Your task to perform on an android device: choose inbox layout in the gmail app Image 0: 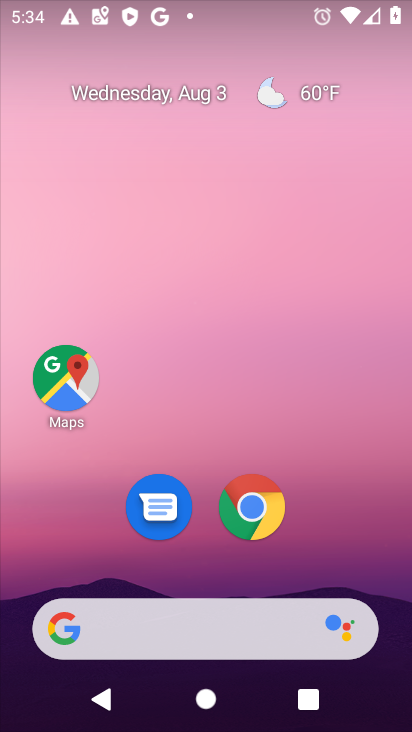
Step 0: drag from (337, 552) to (261, 55)
Your task to perform on an android device: choose inbox layout in the gmail app Image 1: 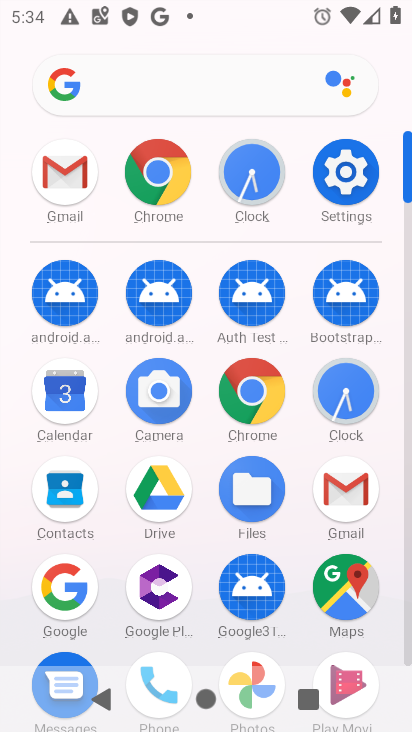
Step 1: click (330, 496)
Your task to perform on an android device: choose inbox layout in the gmail app Image 2: 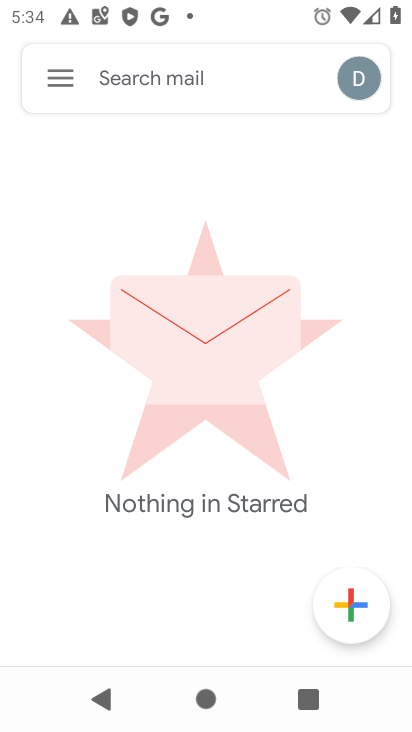
Step 2: click (61, 76)
Your task to perform on an android device: choose inbox layout in the gmail app Image 3: 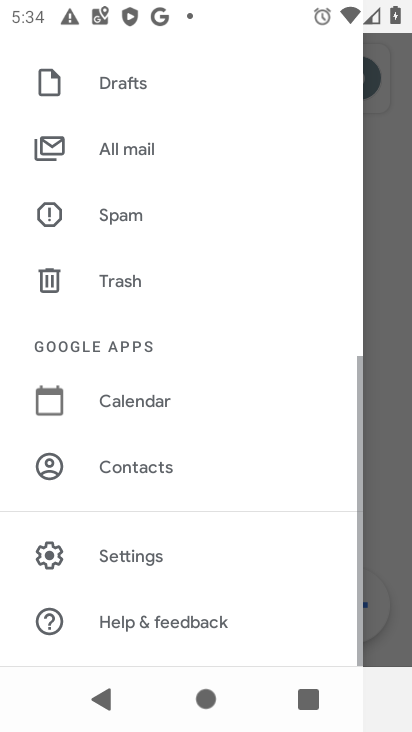
Step 3: click (136, 557)
Your task to perform on an android device: choose inbox layout in the gmail app Image 4: 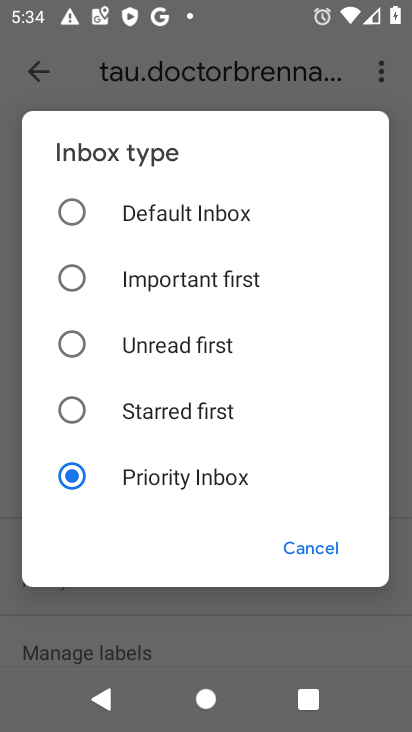
Step 4: task complete